Your task to perform on an android device: open app "Messages" (install if not already installed) and enter user name: "Hersey@inbox.com" and password: "facings" Image 0: 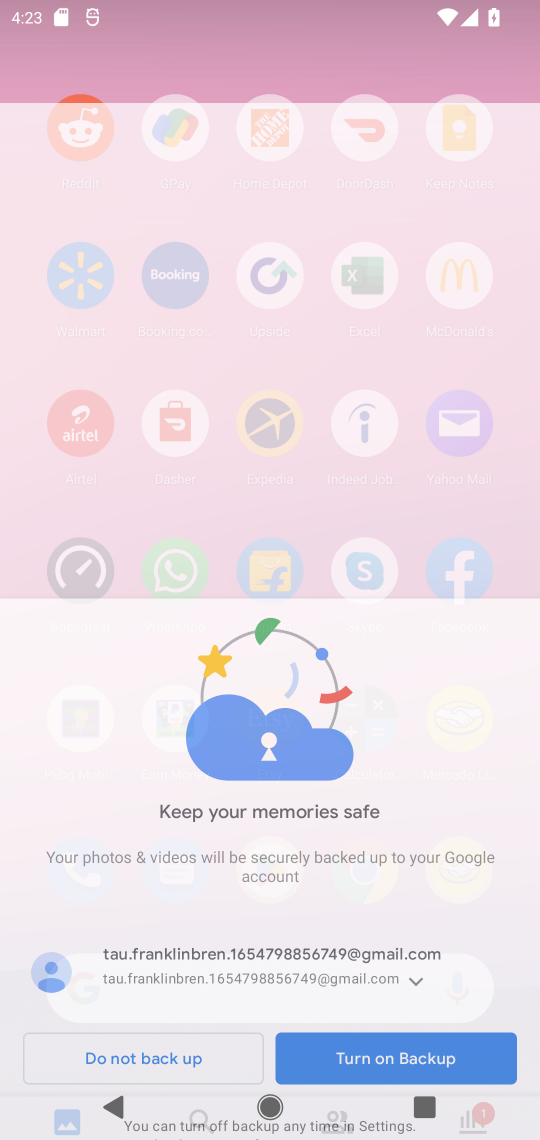
Step 0: press home button
Your task to perform on an android device: open app "Messages" (install if not already installed) and enter user name: "Hersey@inbox.com" and password: "facings" Image 1: 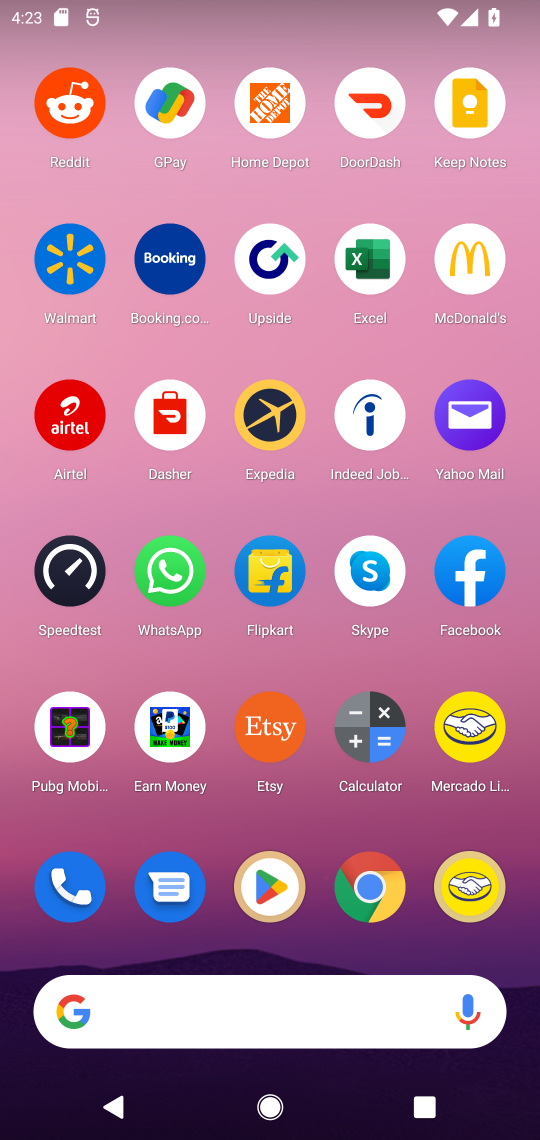
Step 1: click (270, 891)
Your task to perform on an android device: open app "Messages" (install if not already installed) and enter user name: "Hersey@inbox.com" and password: "facings" Image 2: 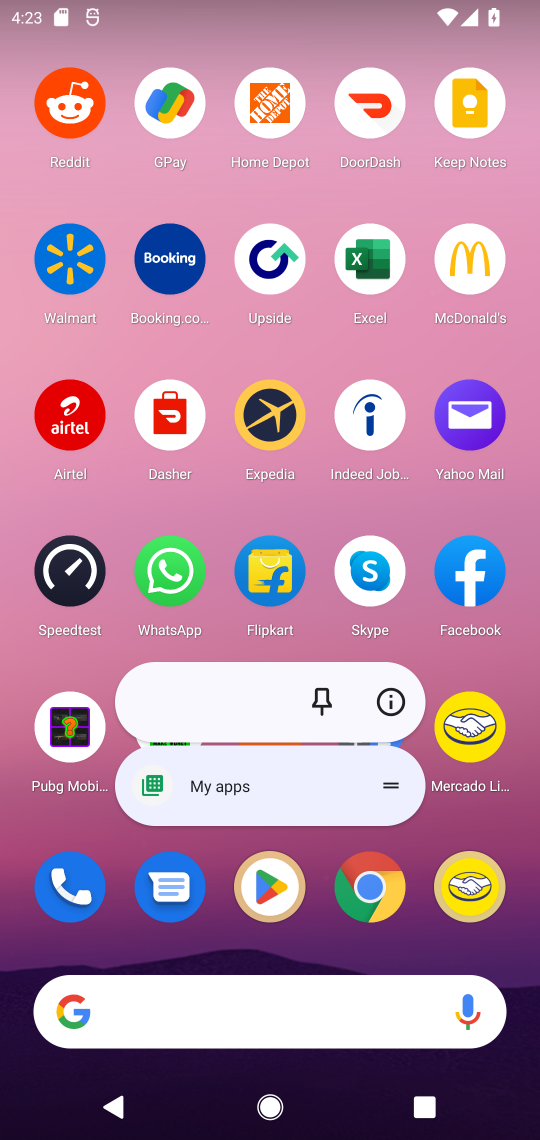
Step 2: click (256, 906)
Your task to perform on an android device: open app "Messages" (install if not already installed) and enter user name: "Hersey@inbox.com" and password: "facings" Image 3: 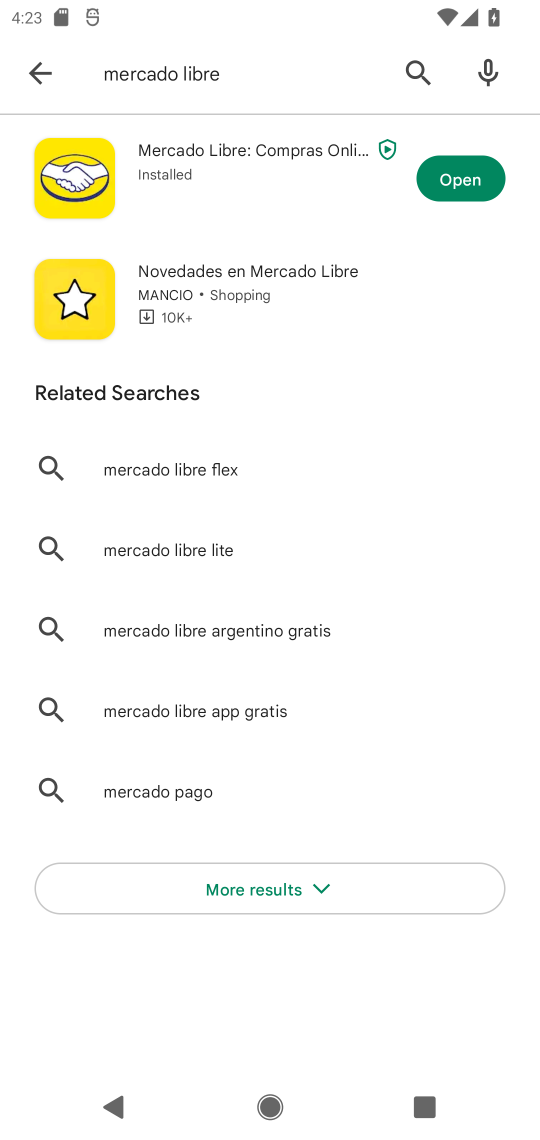
Step 3: click (40, 77)
Your task to perform on an android device: open app "Messages" (install if not already installed) and enter user name: "Hersey@inbox.com" and password: "facings" Image 4: 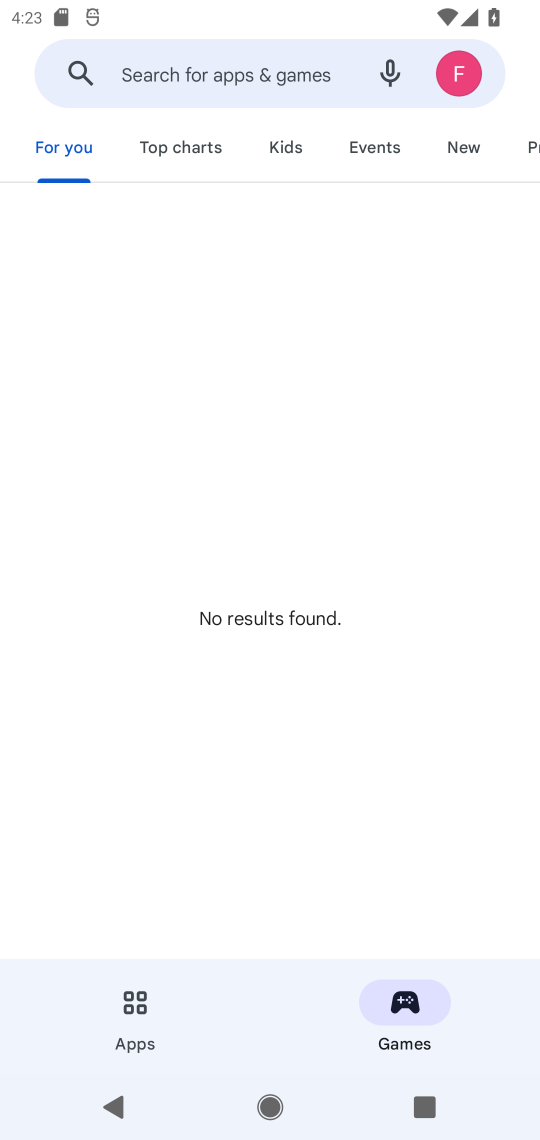
Step 4: click (252, 64)
Your task to perform on an android device: open app "Messages" (install if not already installed) and enter user name: "Hersey@inbox.com" and password: "facings" Image 5: 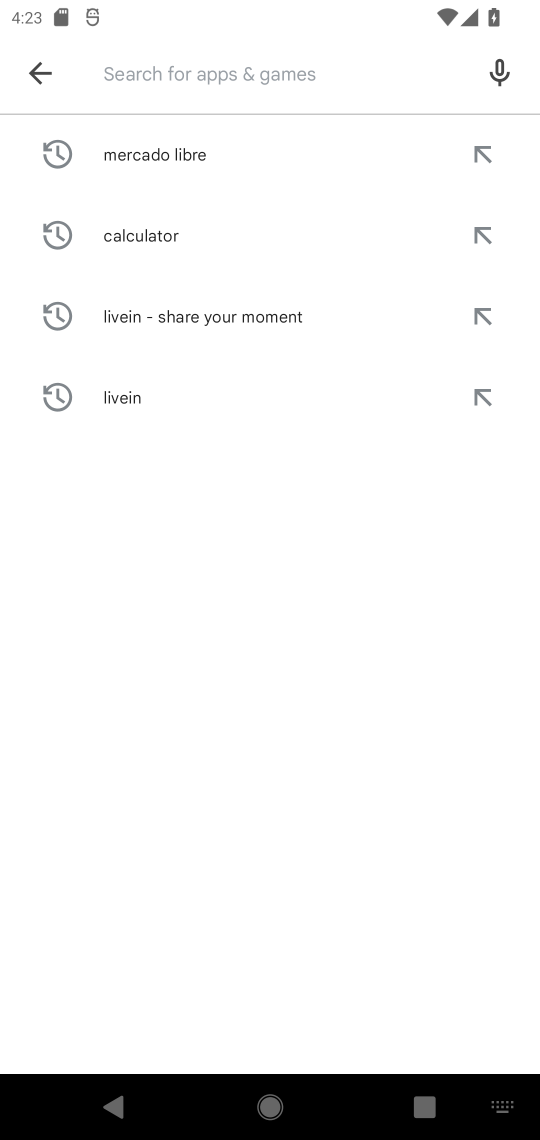
Step 5: type "Messages"
Your task to perform on an android device: open app "Messages" (install if not already installed) and enter user name: "Hersey@inbox.com" and password: "facings" Image 6: 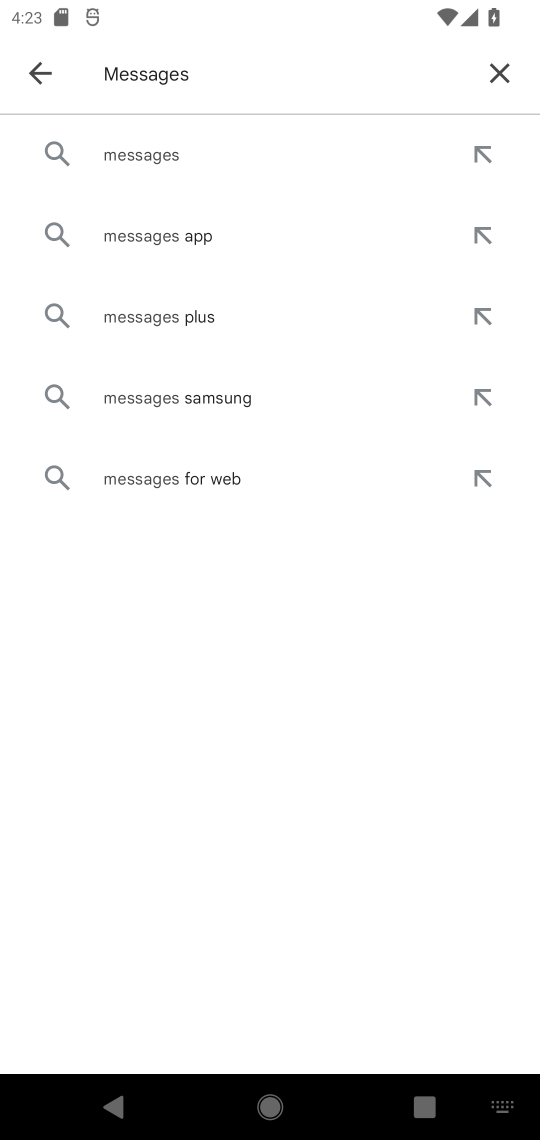
Step 6: click (122, 146)
Your task to perform on an android device: open app "Messages" (install if not already installed) and enter user name: "Hersey@inbox.com" and password: "facings" Image 7: 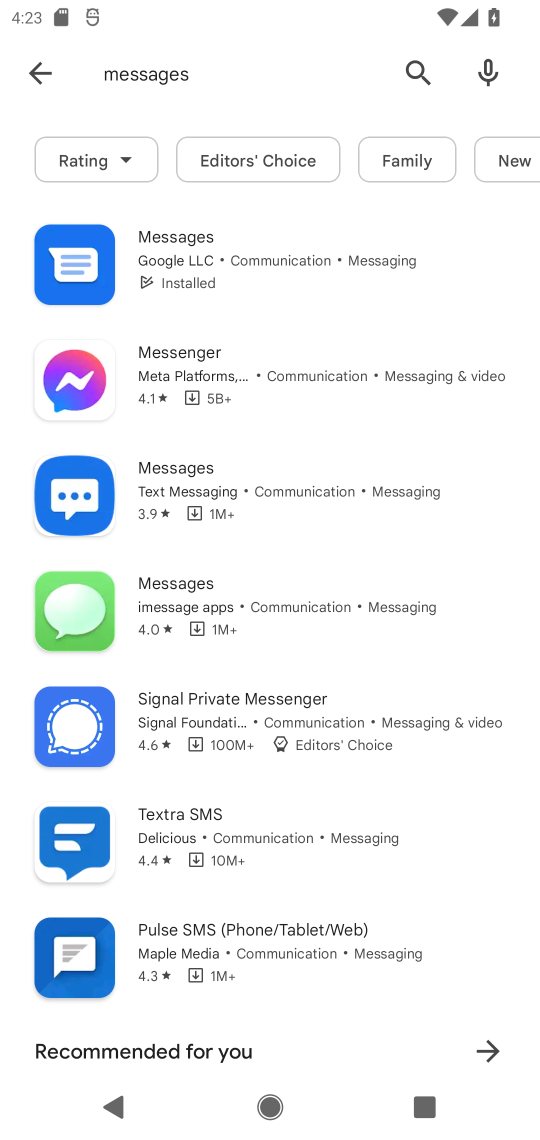
Step 7: click (169, 242)
Your task to perform on an android device: open app "Messages" (install if not already installed) and enter user name: "Hersey@inbox.com" and password: "facings" Image 8: 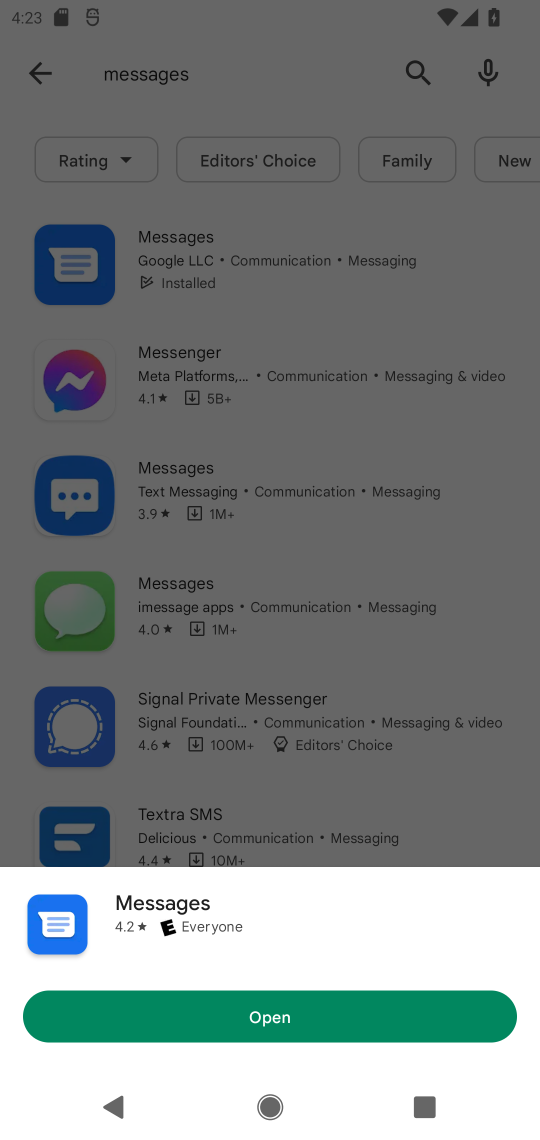
Step 8: click (267, 1032)
Your task to perform on an android device: open app "Messages" (install if not already installed) and enter user name: "Hersey@inbox.com" and password: "facings" Image 9: 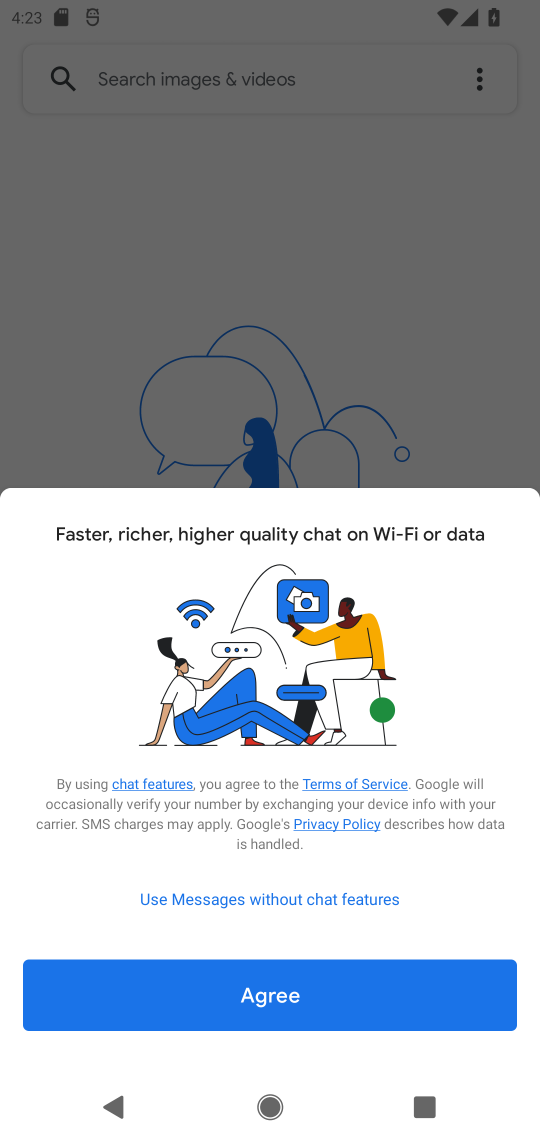
Step 9: click (288, 1015)
Your task to perform on an android device: open app "Messages" (install if not already installed) and enter user name: "Hersey@inbox.com" and password: "facings" Image 10: 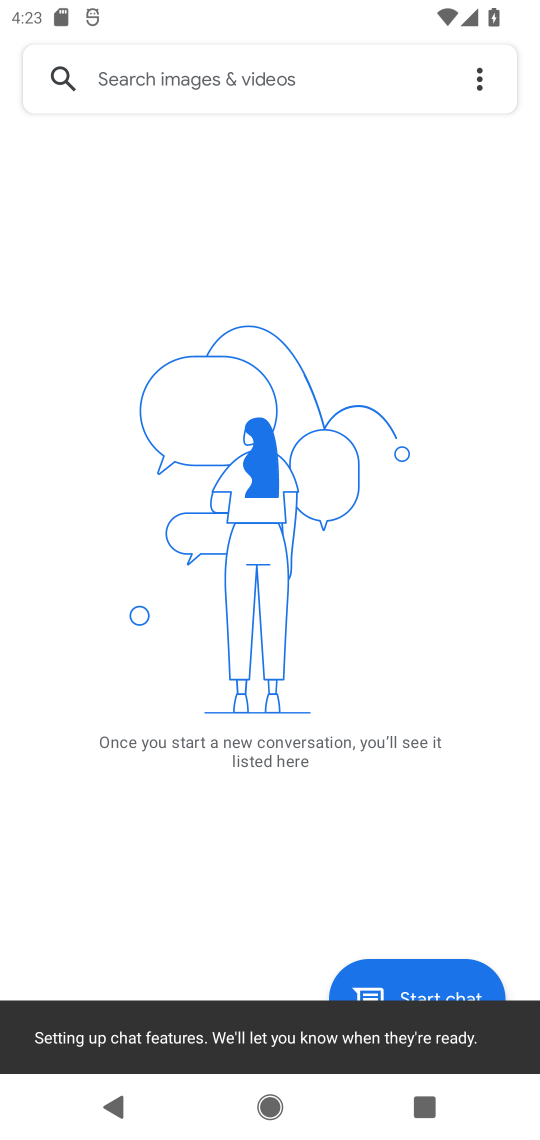
Step 10: task complete